Your task to perform on an android device: Open Google Maps and go to "Timeline" Image 0: 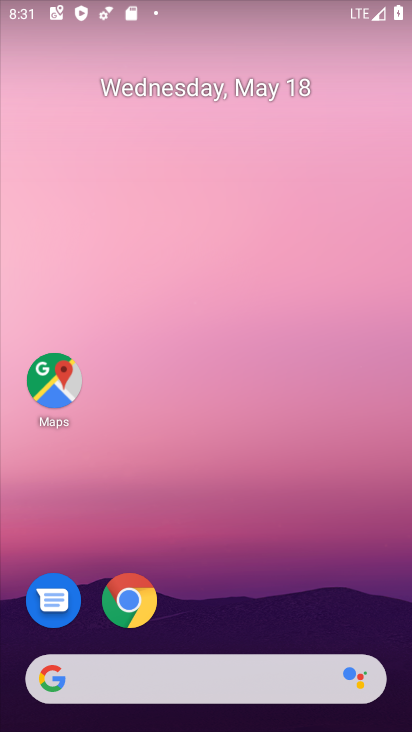
Step 0: click (66, 370)
Your task to perform on an android device: Open Google Maps and go to "Timeline" Image 1: 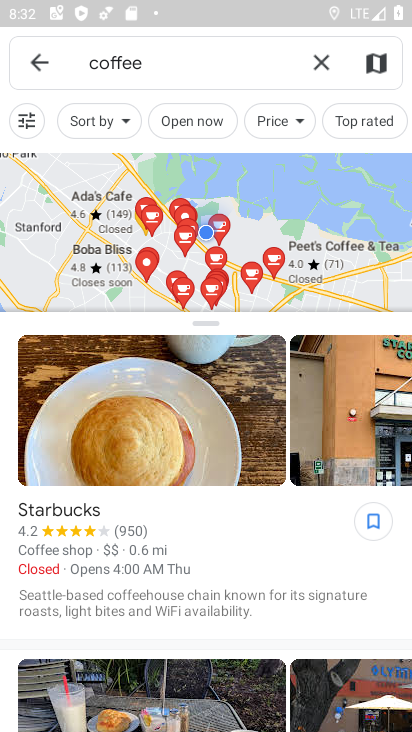
Step 1: click (45, 57)
Your task to perform on an android device: Open Google Maps and go to "Timeline" Image 2: 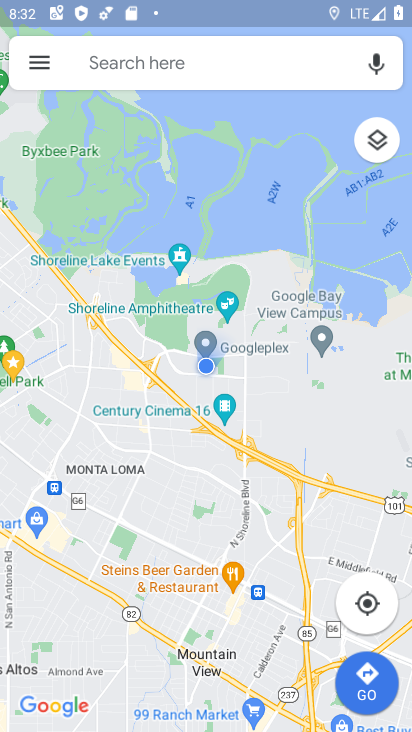
Step 2: click (58, 55)
Your task to perform on an android device: Open Google Maps and go to "Timeline" Image 3: 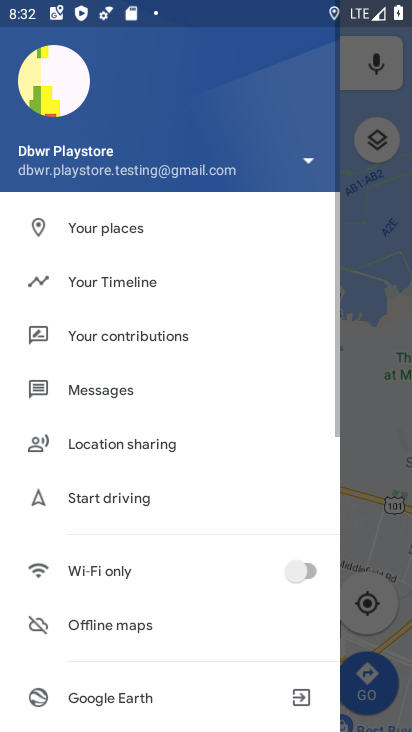
Step 3: click (116, 272)
Your task to perform on an android device: Open Google Maps and go to "Timeline" Image 4: 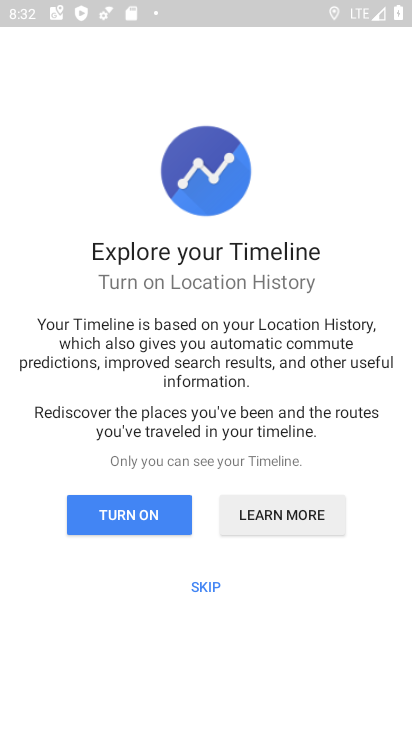
Step 4: click (212, 574)
Your task to perform on an android device: Open Google Maps and go to "Timeline" Image 5: 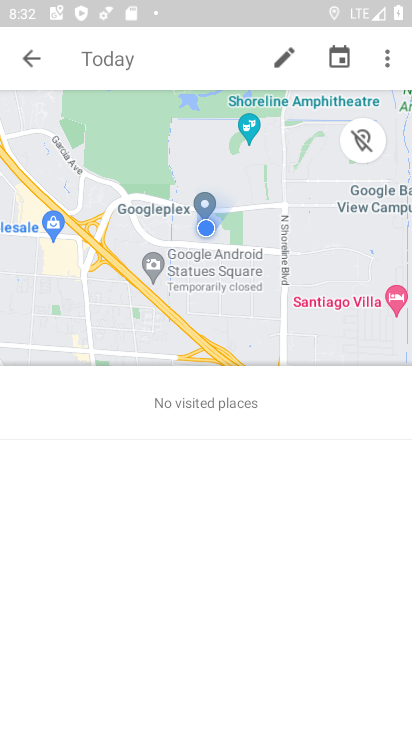
Step 5: click (384, 49)
Your task to perform on an android device: Open Google Maps and go to "Timeline" Image 6: 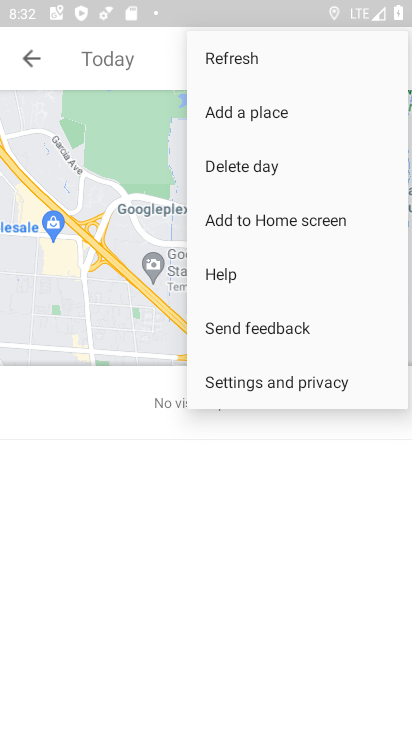
Step 6: task complete